Your task to perform on an android device: Open the music app Image 0: 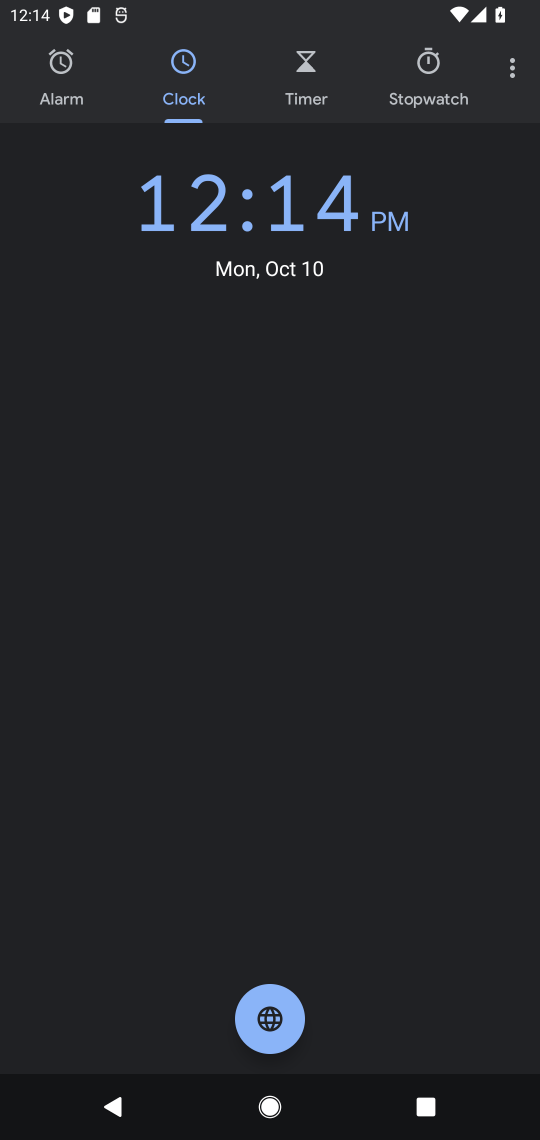
Step 0: press home button
Your task to perform on an android device: Open the music app Image 1: 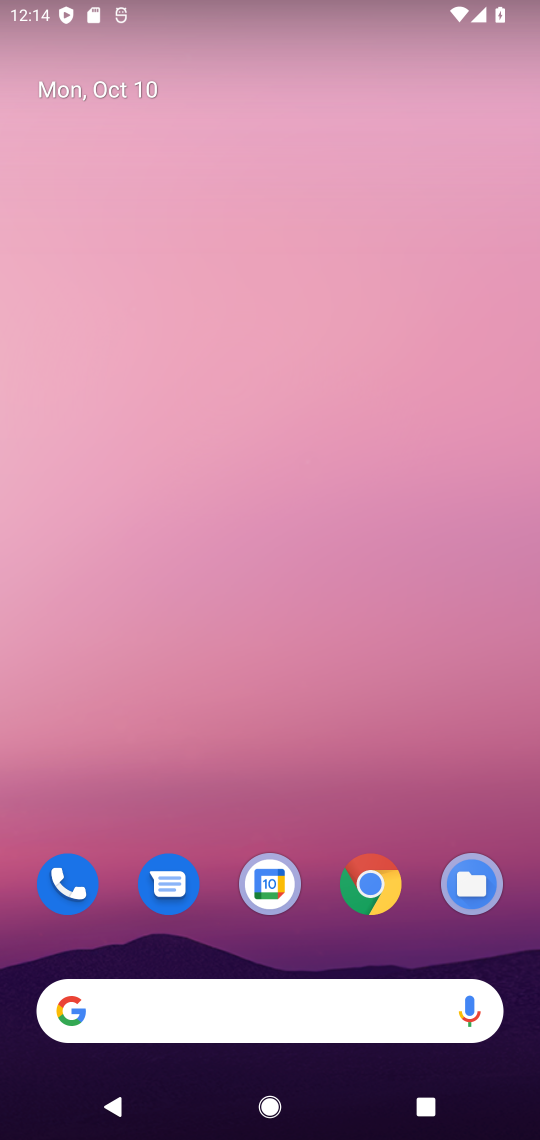
Step 1: drag from (221, 986) to (180, 389)
Your task to perform on an android device: Open the music app Image 2: 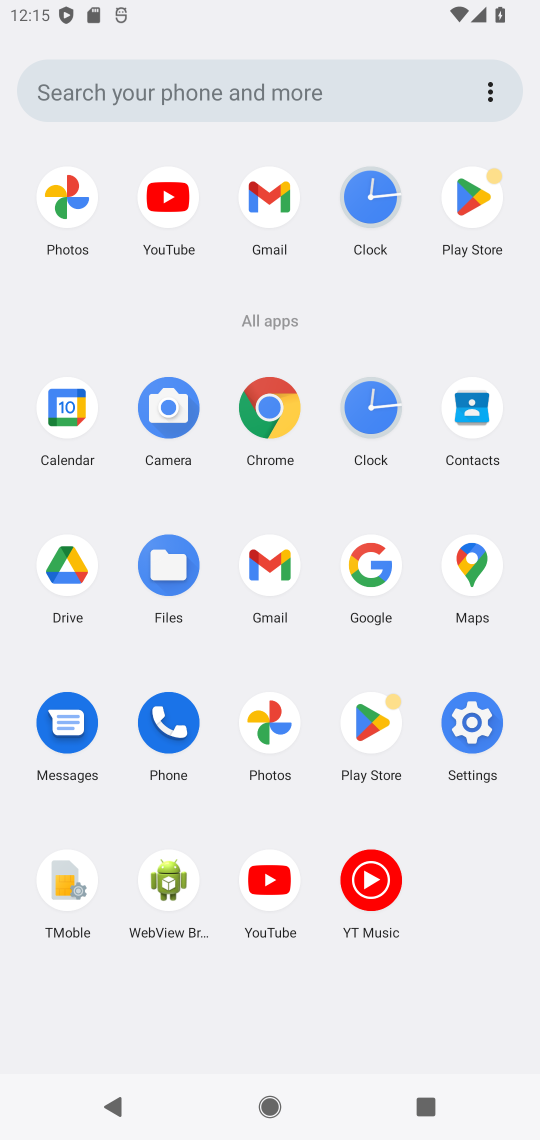
Step 2: click (378, 899)
Your task to perform on an android device: Open the music app Image 3: 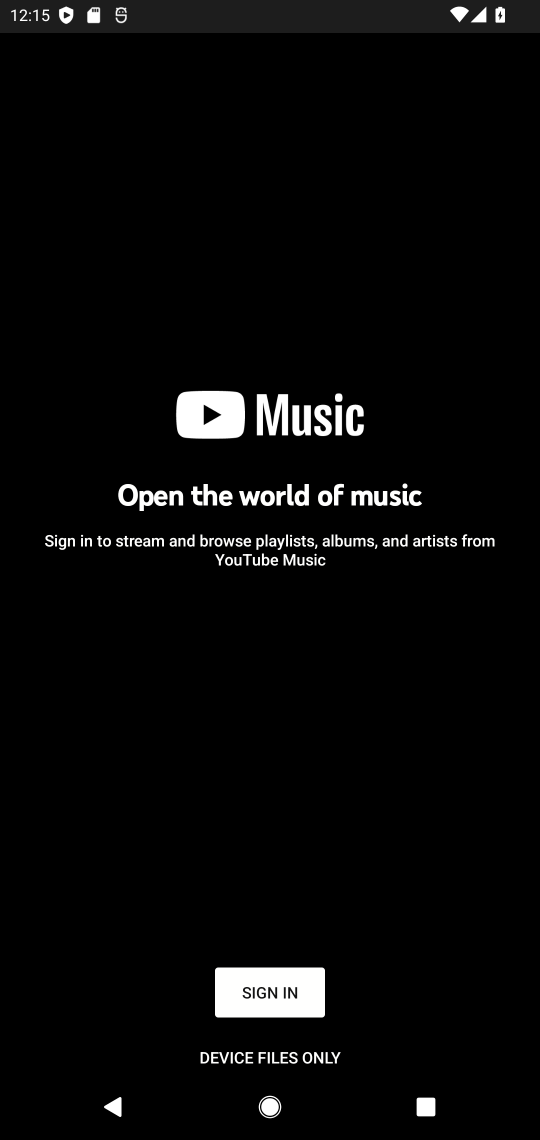
Step 3: click (306, 1068)
Your task to perform on an android device: Open the music app Image 4: 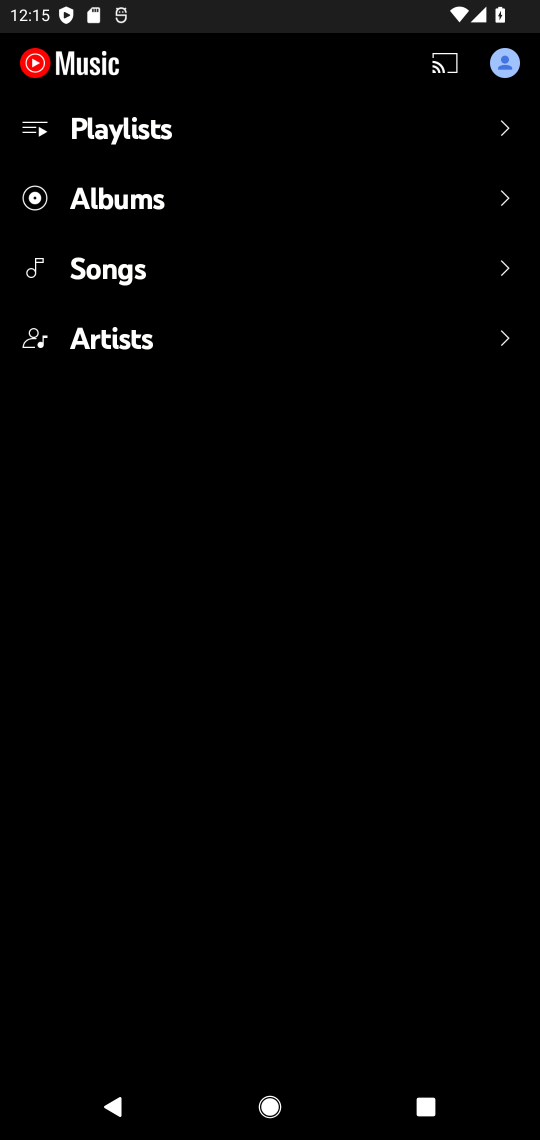
Step 4: task complete